Your task to perform on an android device: turn off javascript in the chrome app Image 0: 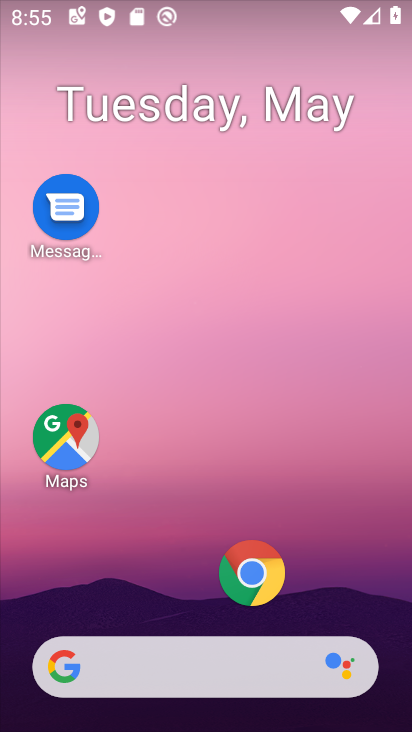
Step 0: drag from (368, 659) to (259, 157)
Your task to perform on an android device: turn off javascript in the chrome app Image 1: 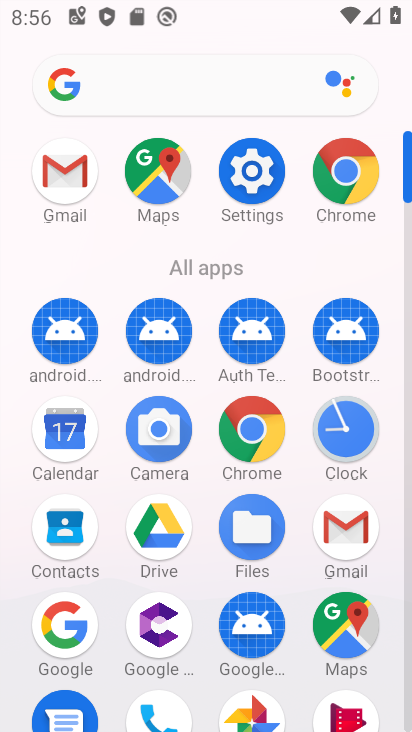
Step 1: click (342, 178)
Your task to perform on an android device: turn off javascript in the chrome app Image 2: 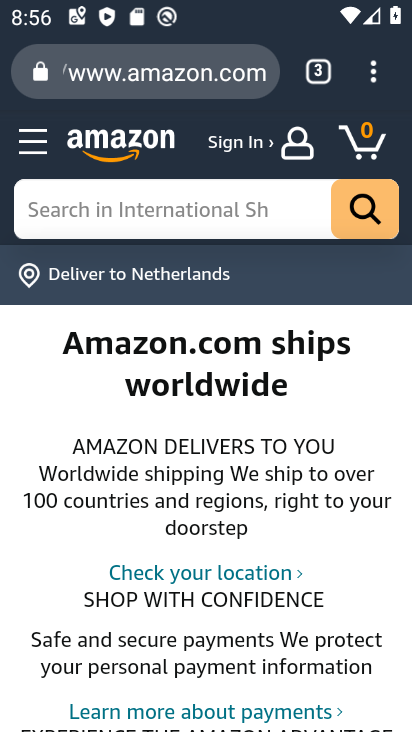
Step 2: click (376, 66)
Your task to perform on an android device: turn off javascript in the chrome app Image 3: 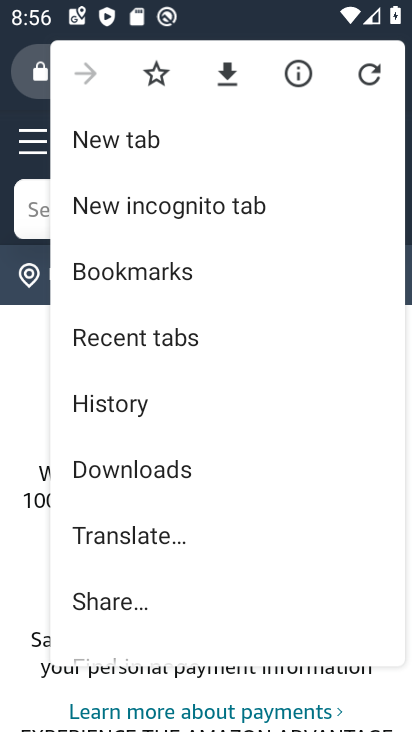
Step 3: drag from (144, 549) to (167, 187)
Your task to perform on an android device: turn off javascript in the chrome app Image 4: 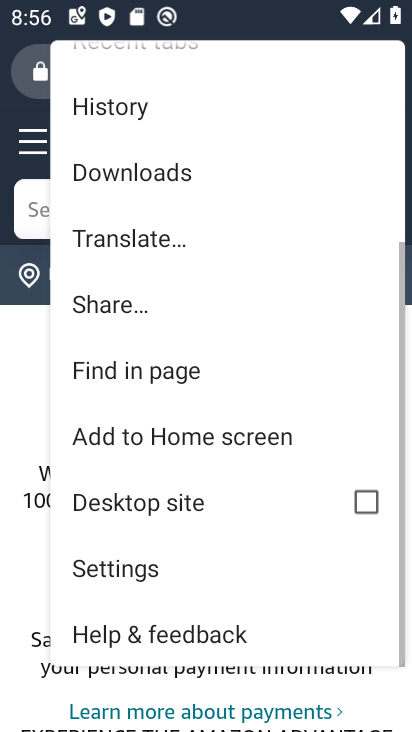
Step 4: drag from (198, 349) to (188, 108)
Your task to perform on an android device: turn off javascript in the chrome app Image 5: 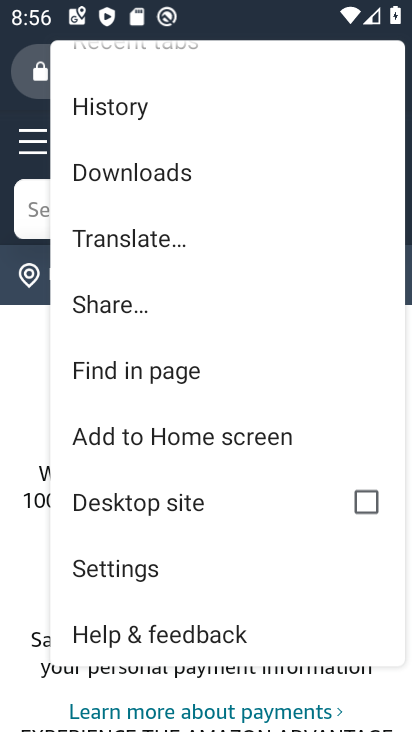
Step 5: click (123, 555)
Your task to perform on an android device: turn off javascript in the chrome app Image 6: 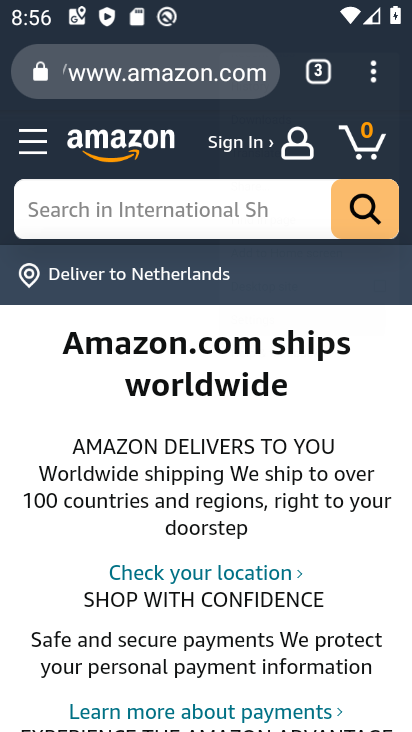
Step 6: click (131, 556)
Your task to perform on an android device: turn off javascript in the chrome app Image 7: 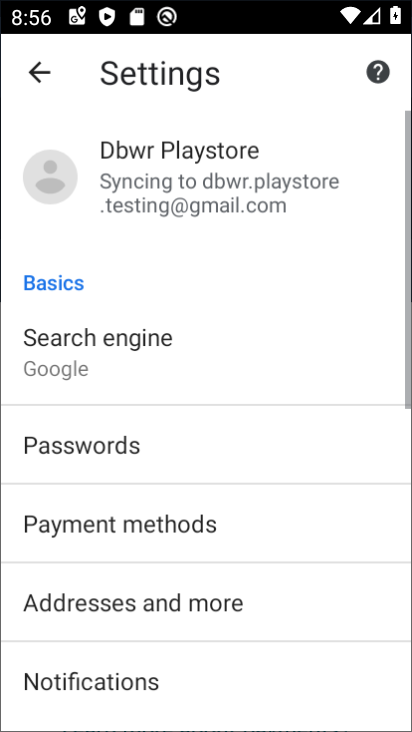
Step 7: click (133, 555)
Your task to perform on an android device: turn off javascript in the chrome app Image 8: 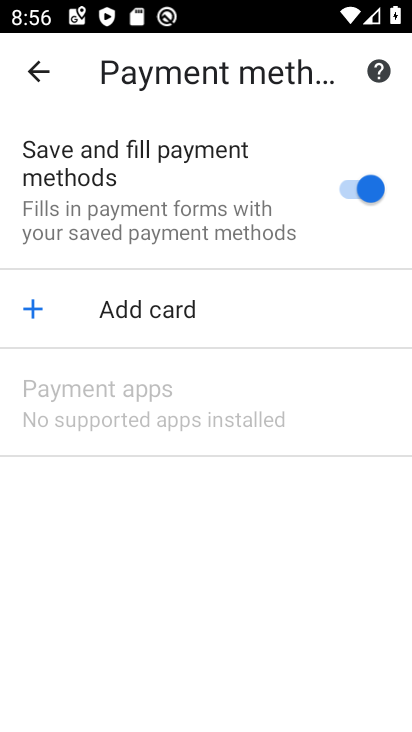
Step 8: click (26, 68)
Your task to perform on an android device: turn off javascript in the chrome app Image 9: 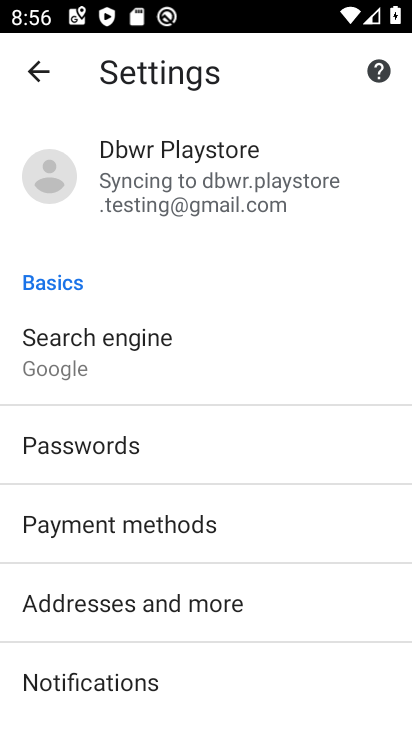
Step 9: drag from (125, 631) to (192, 184)
Your task to perform on an android device: turn off javascript in the chrome app Image 10: 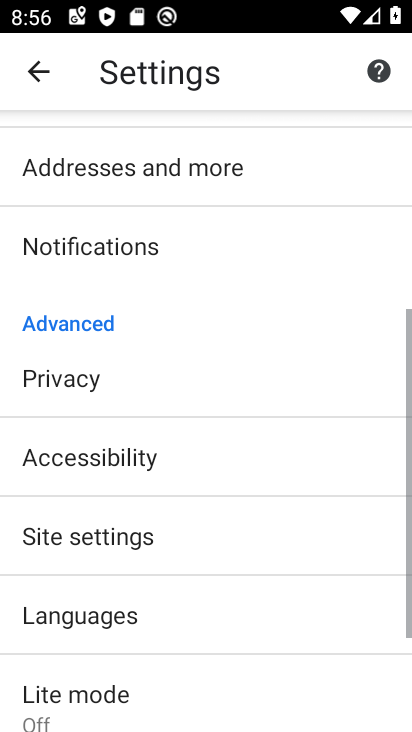
Step 10: drag from (214, 424) to (209, 178)
Your task to perform on an android device: turn off javascript in the chrome app Image 11: 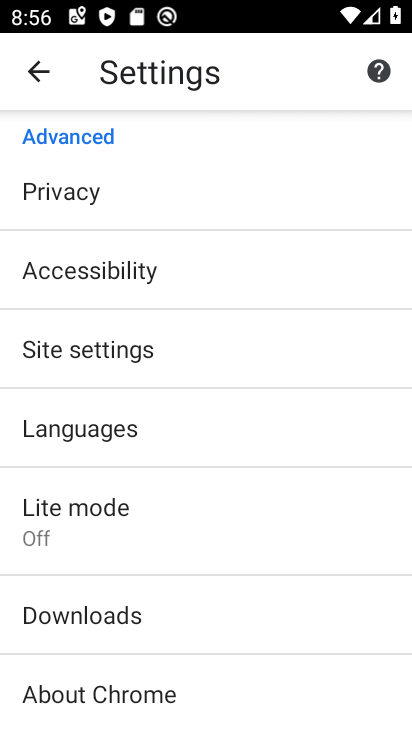
Step 11: click (68, 347)
Your task to perform on an android device: turn off javascript in the chrome app Image 12: 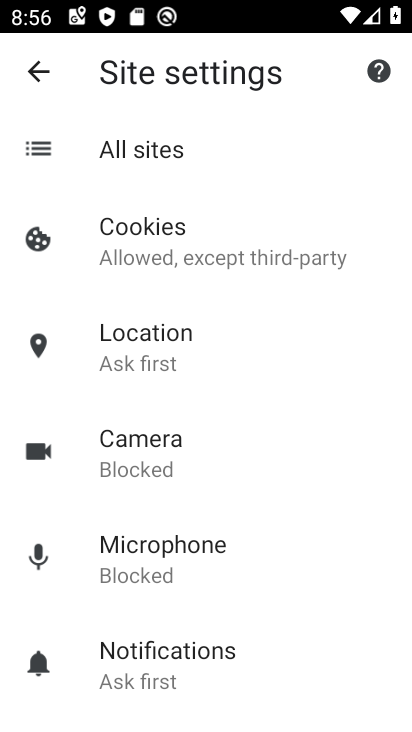
Step 12: drag from (164, 514) to (164, 239)
Your task to perform on an android device: turn off javascript in the chrome app Image 13: 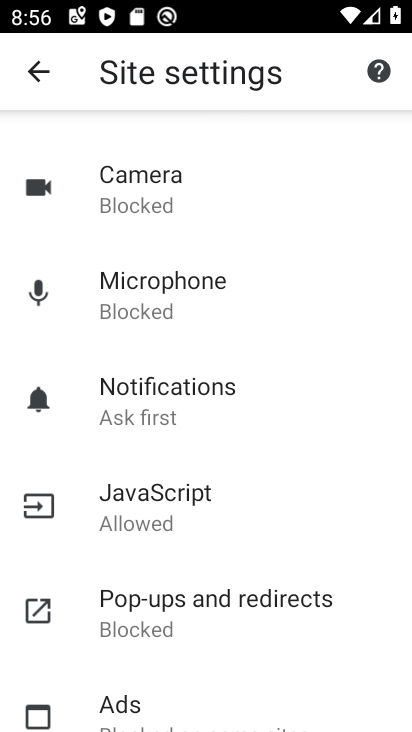
Step 13: click (145, 498)
Your task to perform on an android device: turn off javascript in the chrome app Image 14: 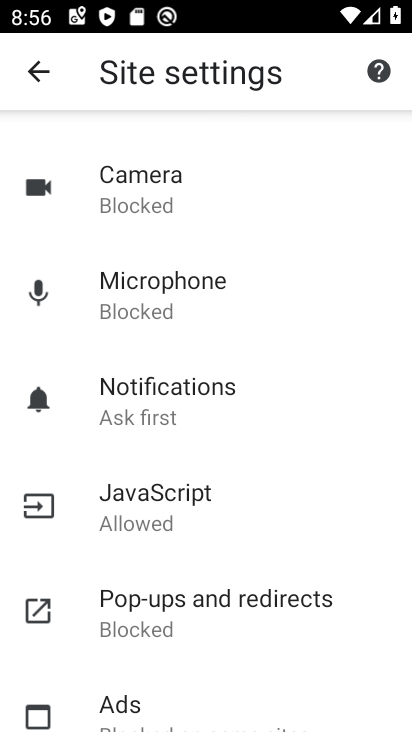
Step 14: click (145, 495)
Your task to perform on an android device: turn off javascript in the chrome app Image 15: 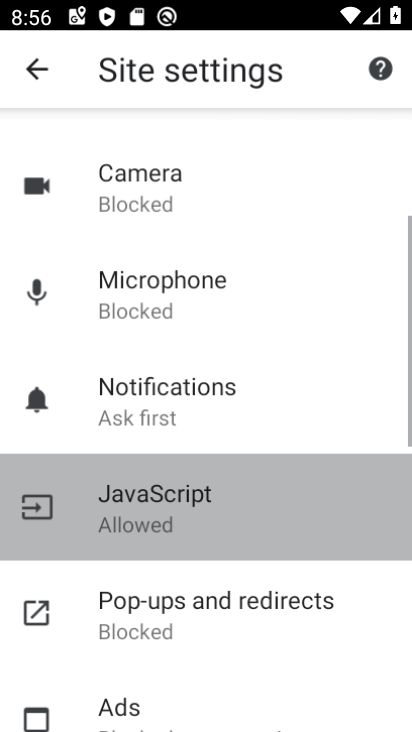
Step 15: click (146, 494)
Your task to perform on an android device: turn off javascript in the chrome app Image 16: 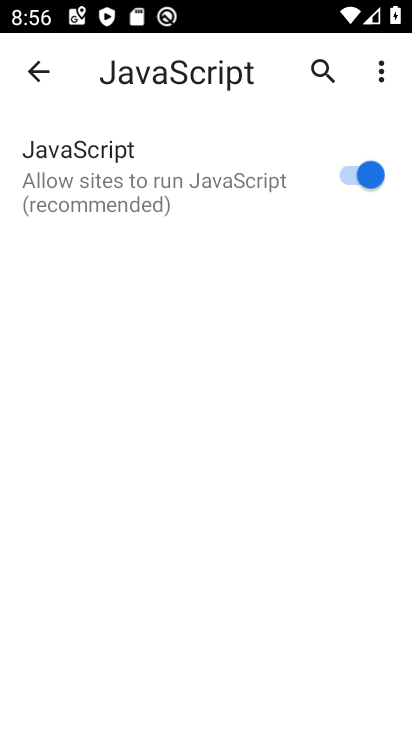
Step 16: click (146, 489)
Your task to perform on an android device: turn off javascript in the chrome app Image 17: 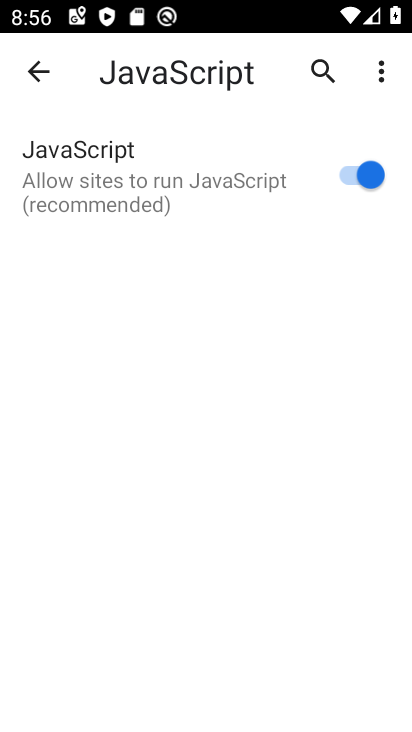
Step 17: click (360, 172)
Your task to perform on an android device: turn off javascript in the chrome app Image 18: 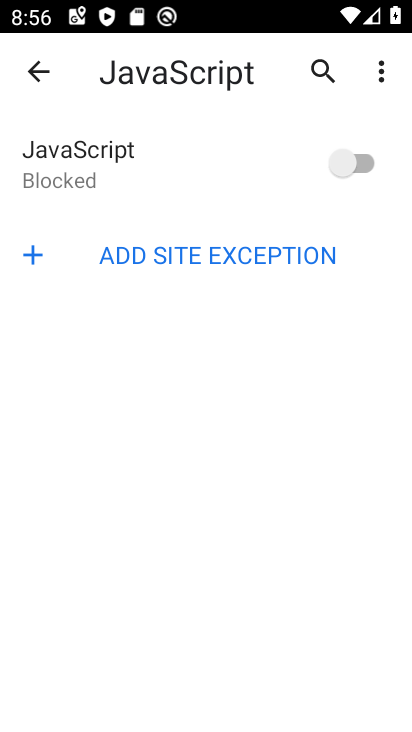
Step 18: click (349, 165)
Your task to perform on an android device: turn off javascript in the chrome app Image 19: 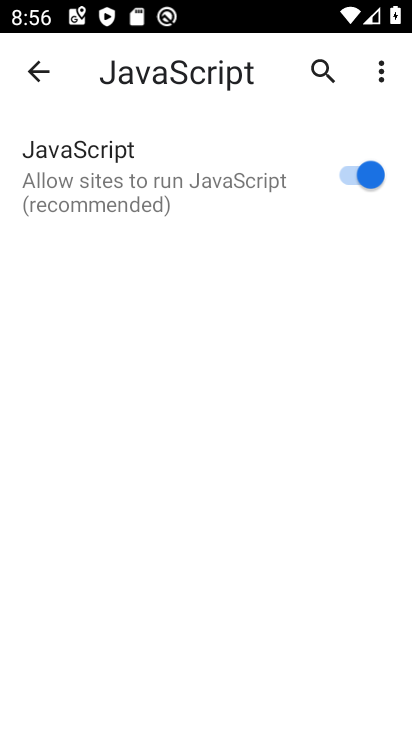
Step 19: task complete